Your task to perform on an android device: Show the shopping cart on ebay.com. Image 0: 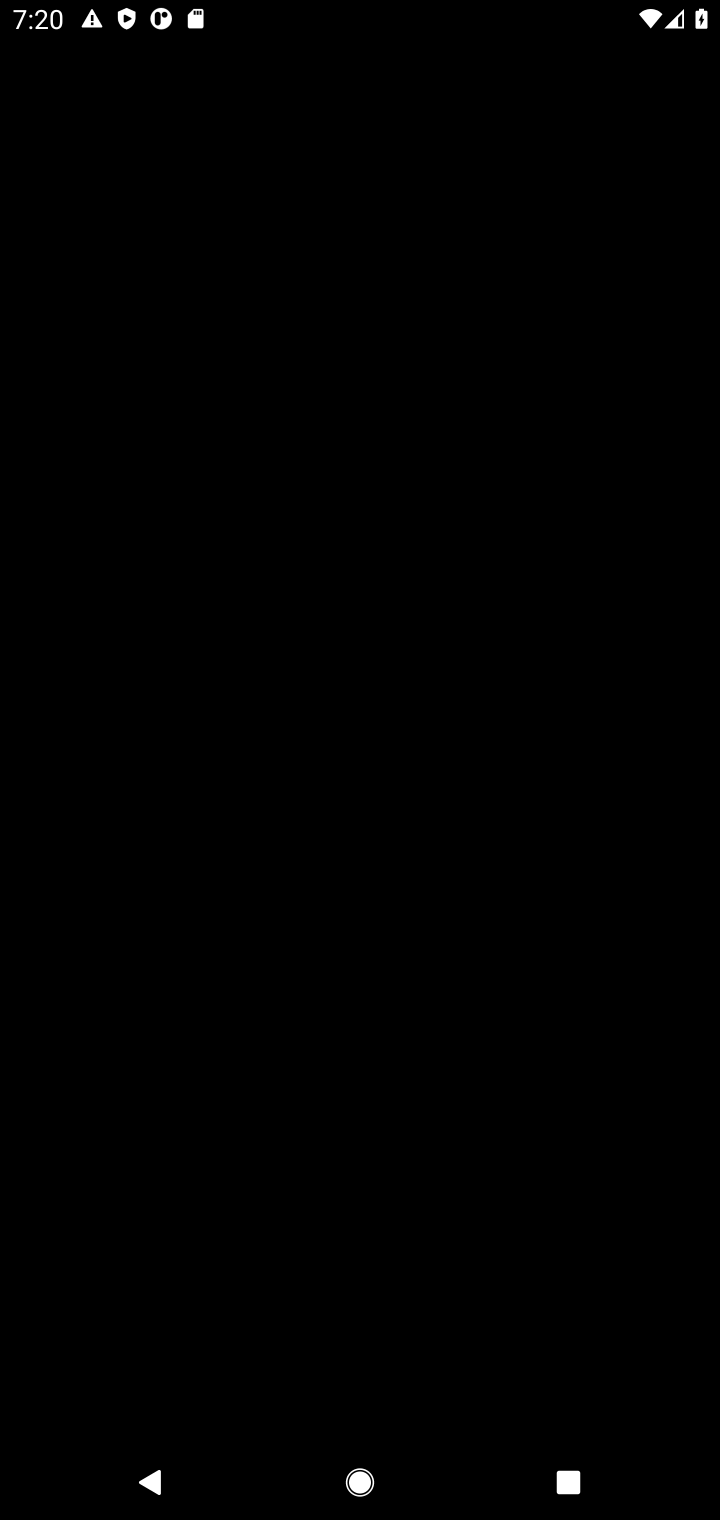
Step 0: press home button
Your task to perform on an android device: Show the shopping cart on ebay.com. Image 1: 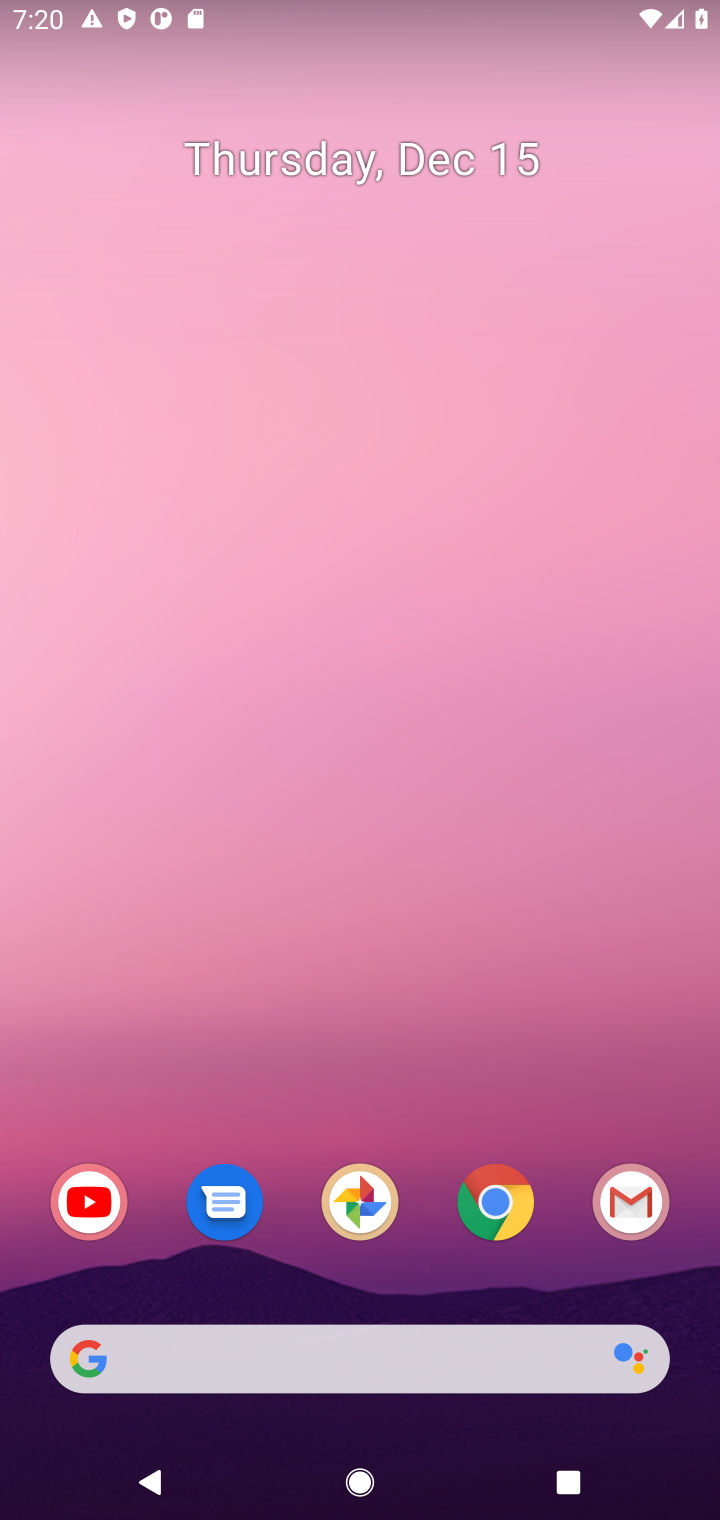
Step 1: click (489, 1220)
Your task to perform on an android device: Show the shopping cart on ebay.com. Image 2: 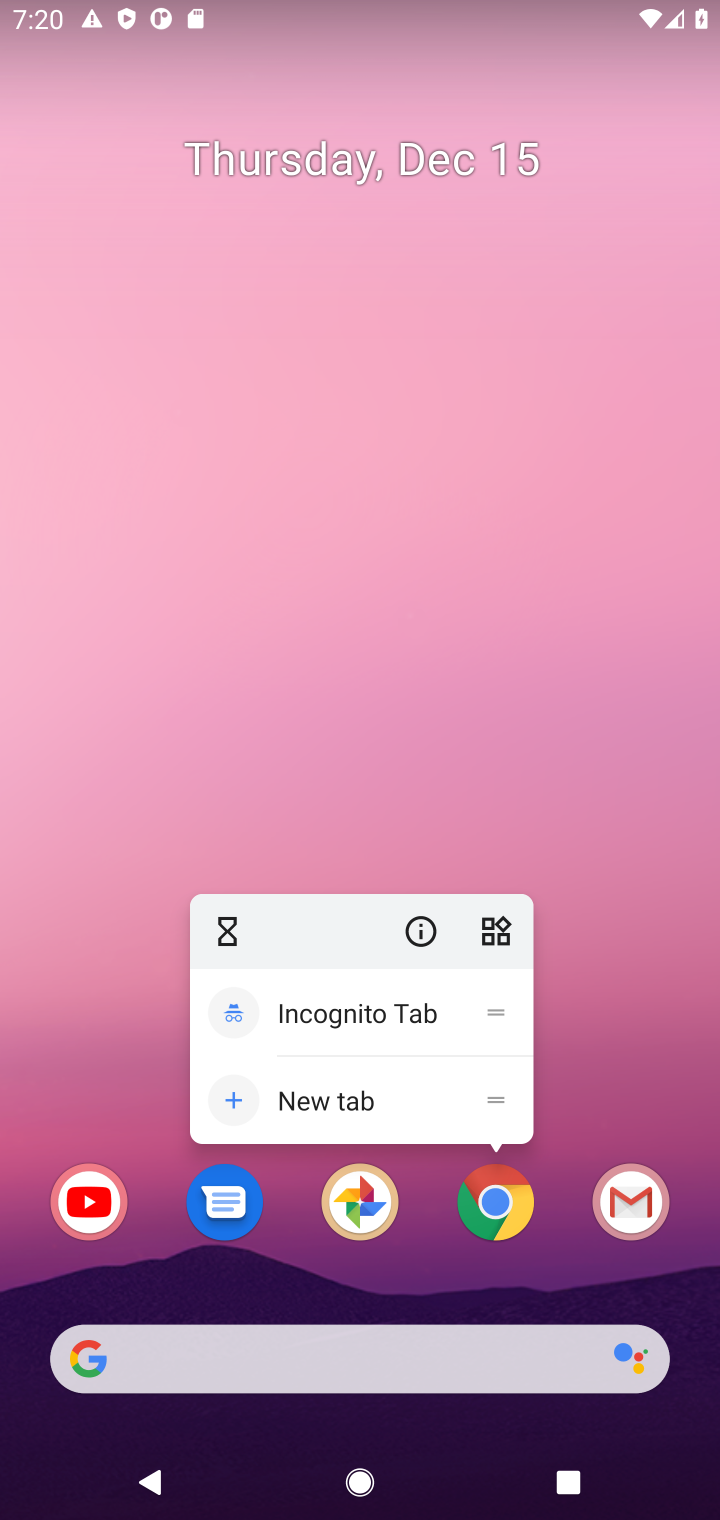
Step 2: click (489, 1220)
Your task to perform on an android device: Show the shopping cart on ebay.com. Image 3: 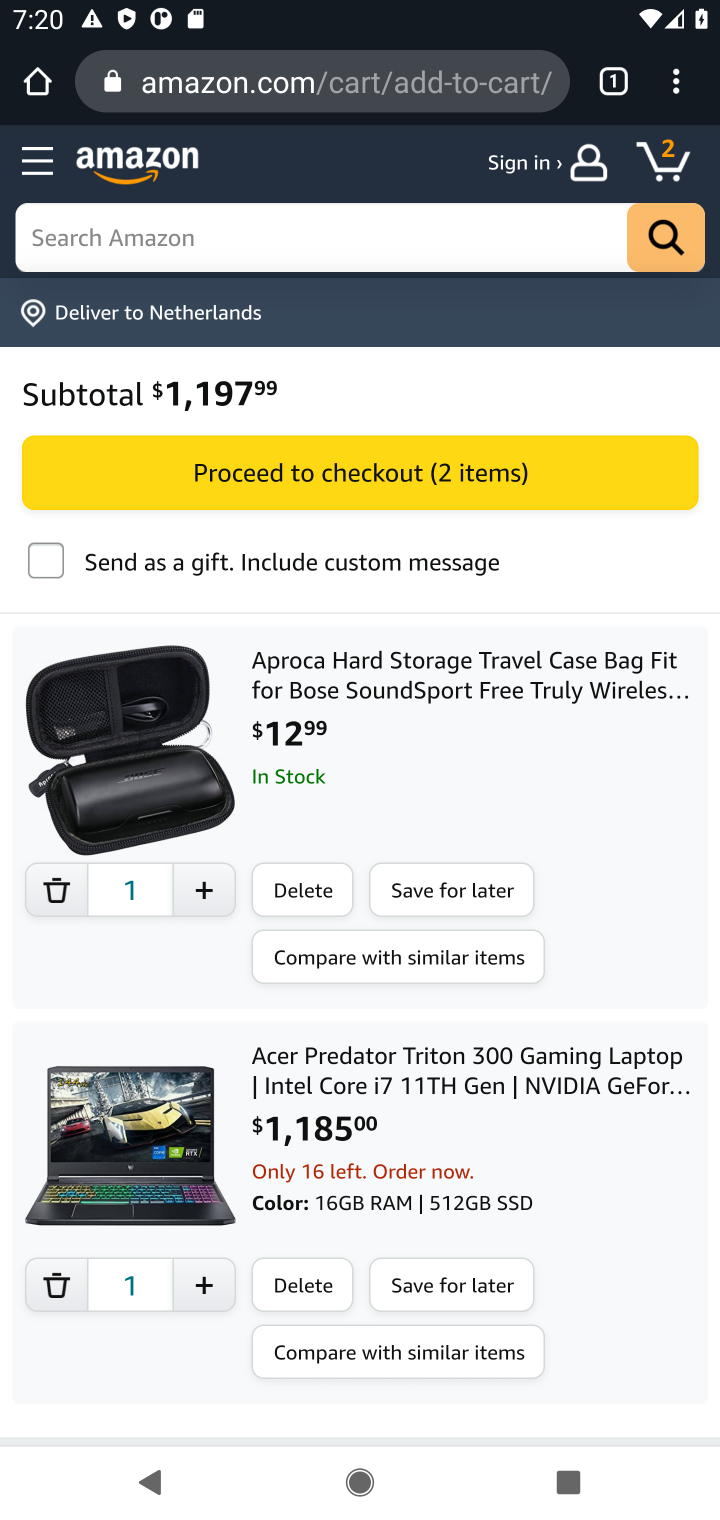
Step 3: click (304, 94)
Your task to perform on an android device: Show the shopping cart on ebay.com. Image 4: 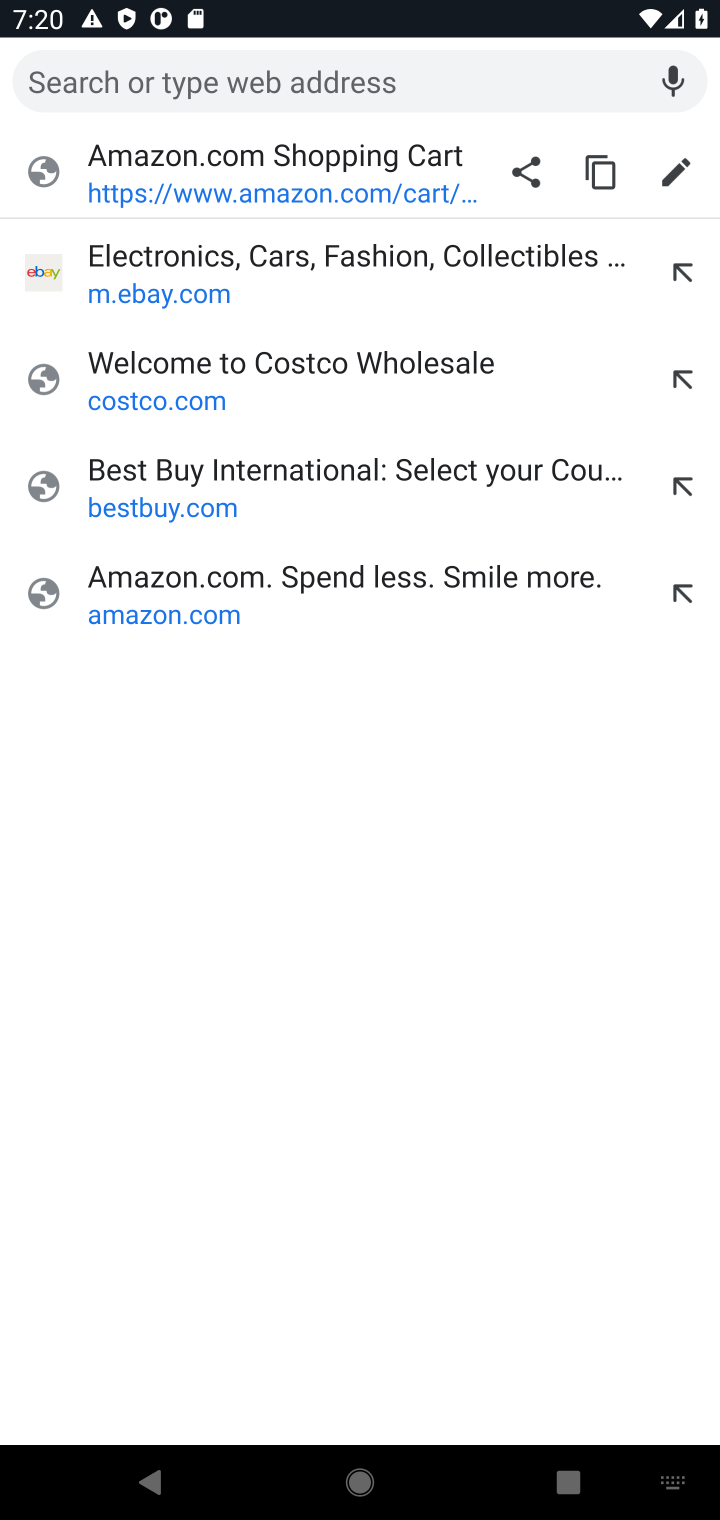
Step 4: click (163, 276)
Your task to perform on an android device: Show the shopping cart on ebay.com. Image 5: 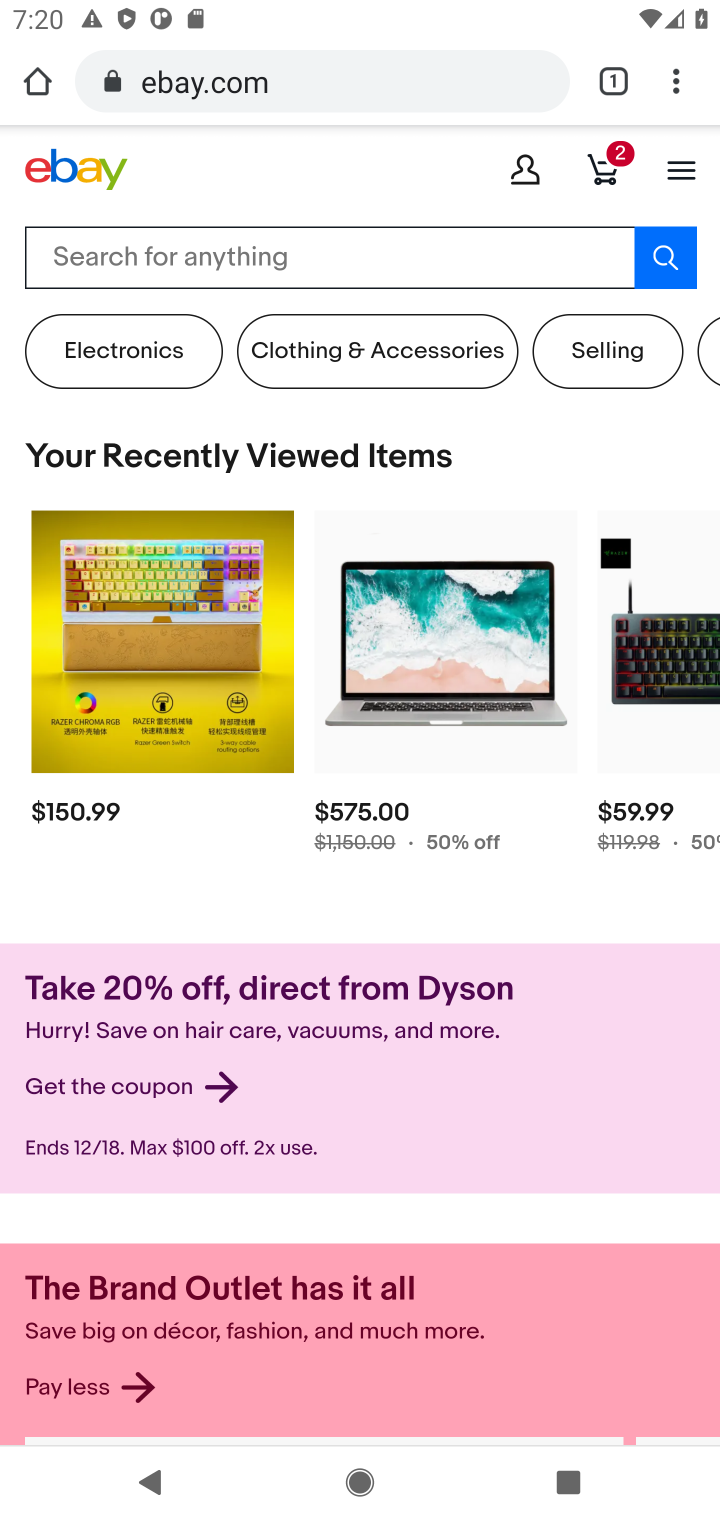
Step 5: click (600, 173)
Your task to perform on an android device: Show the shopping cart on ebay.com. Image 6: 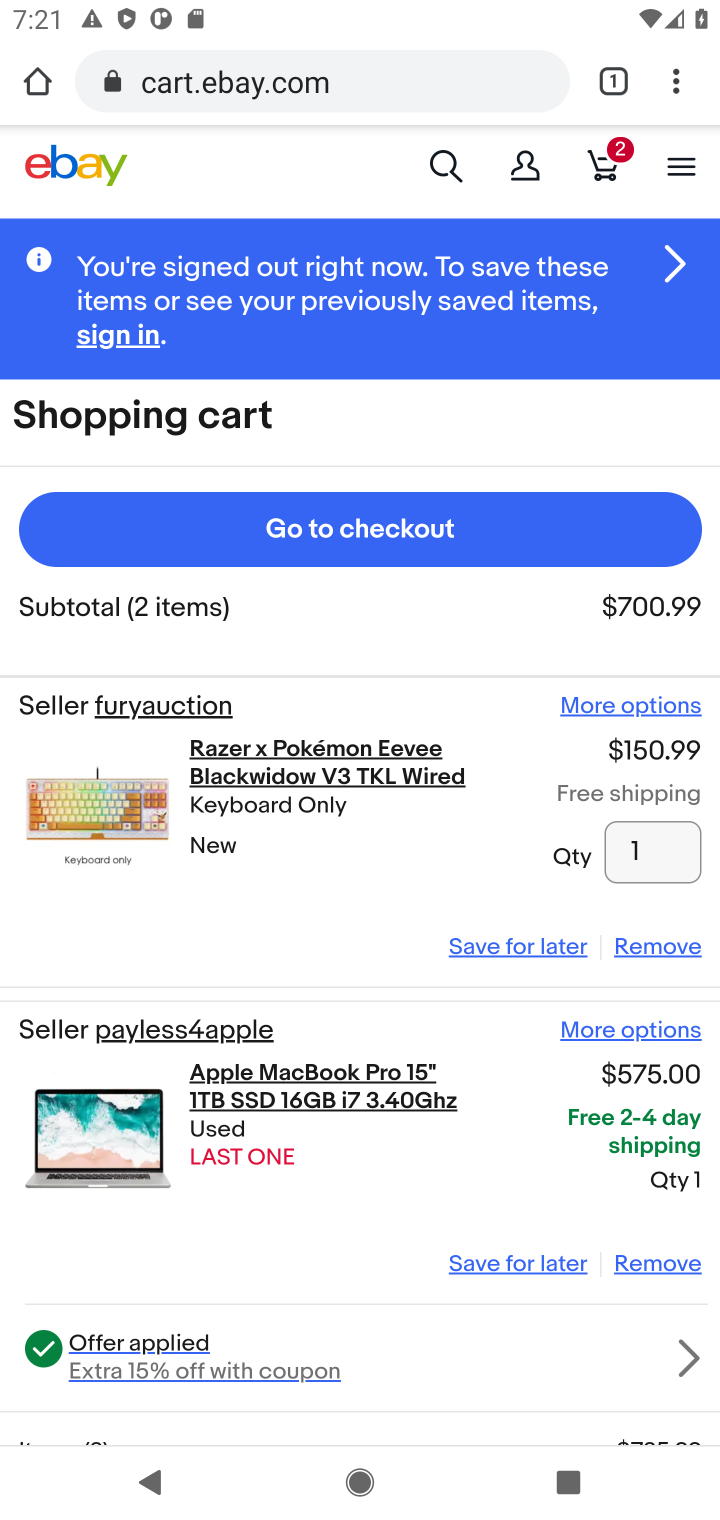
Step 6: task complete